Your task to perform on an android device: Open Yahoo.com Image 0: 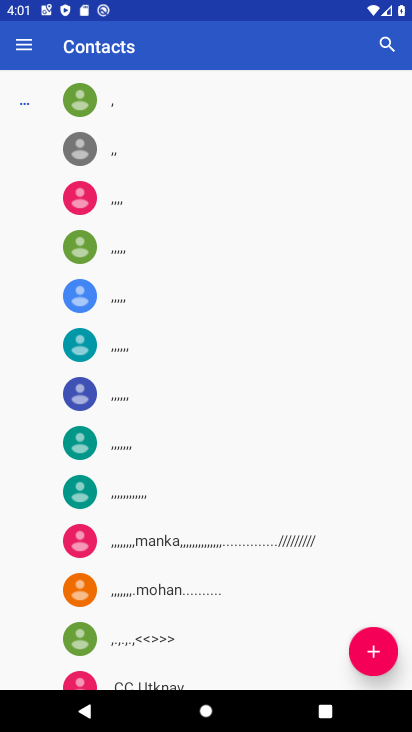
Step 0: press home button
Your task to perform on an android device: Open Yahoo.com Image 1: 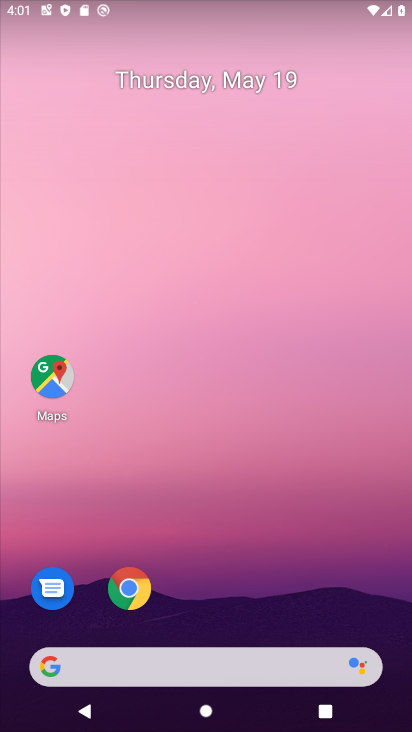
Step 1: click (118, 590)
Your task to perform on an android device: Open Yahoo.com Image 2: 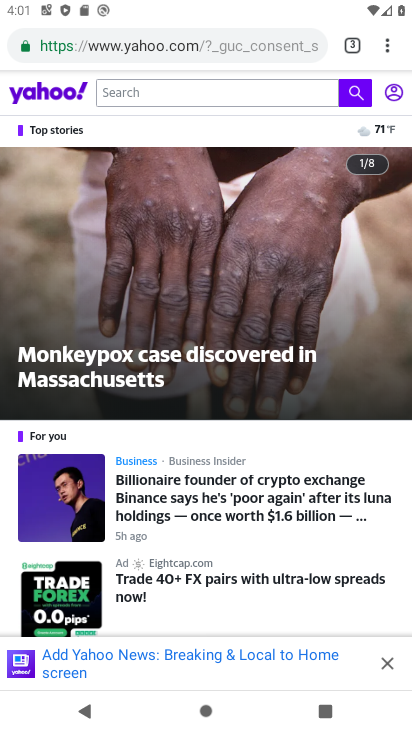
Step 2: task complete